Your task to perform on an android device: find photos in the google photos app Image 0: 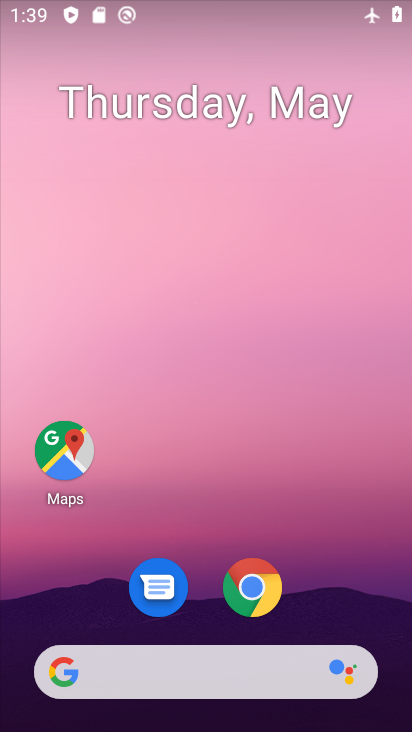
Step 0: drag from (309, 519) to (213, 64)
Your task to perform on an android device: find photos in the google photos app Image 1: 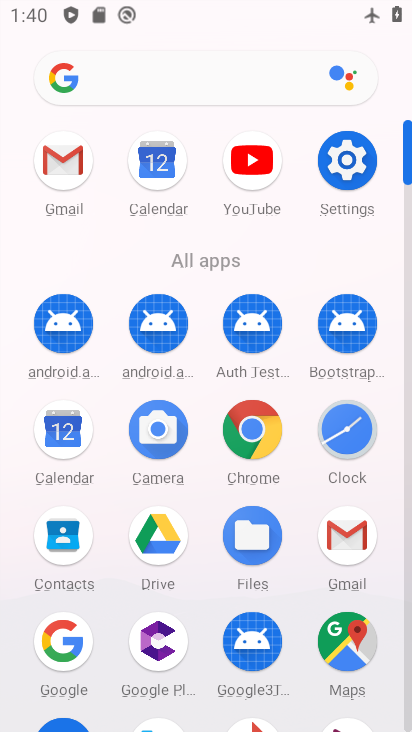
Step 1: click (259, 308)
Your task to perform on an android device: find photos in the google photos app Image 2: 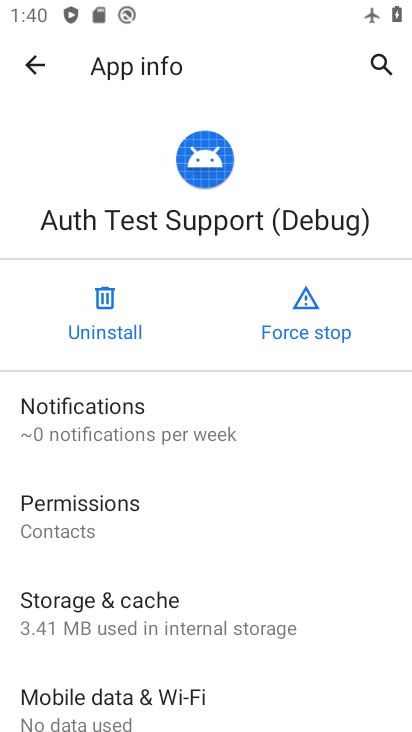
Step 2: click (193, 346)
Your task to perform on an android device: find photos in the google photos app Image 3: 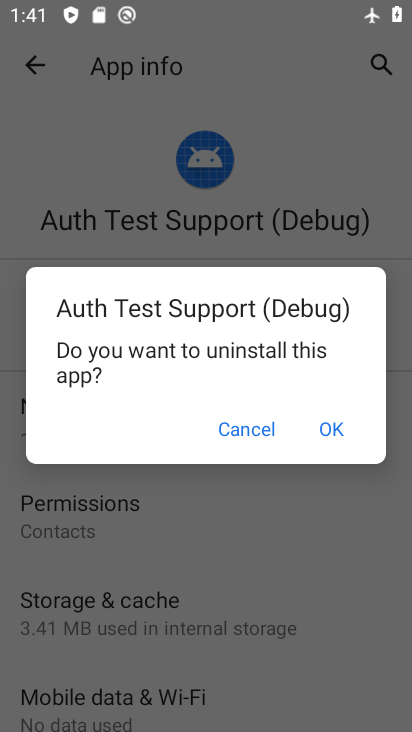
Step 3: click (28, 57)
Your task to perform on an android device: find photos in the google photos app Image 4: 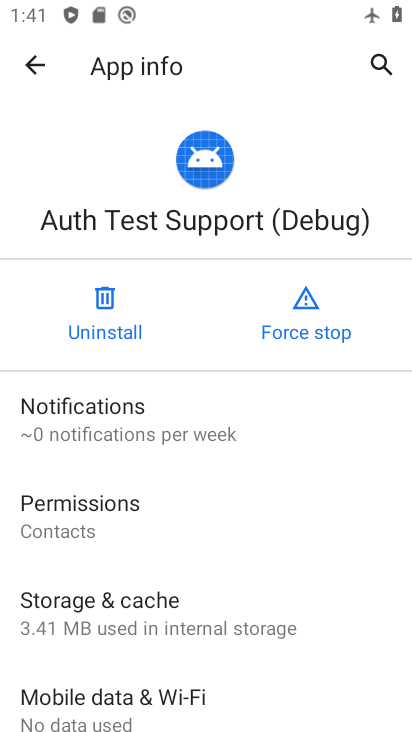
Step 4: press home button
Your task to perform on an android device: find photos in the google photos app Image 5: 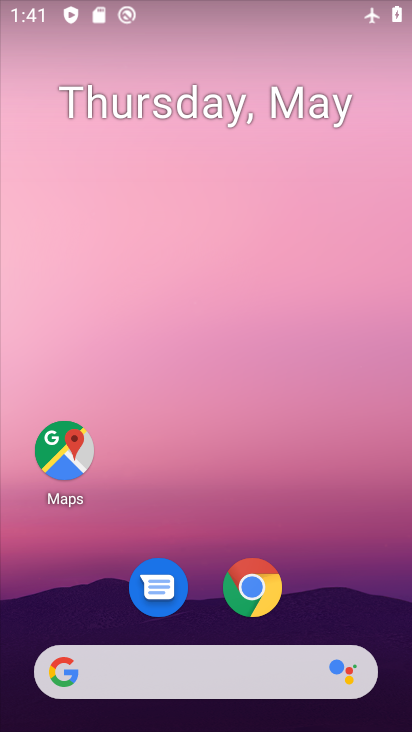
Step 5: drag from (302, 532) to (259, 102)
Your task to perform on an android device: find photos in the google photos app Image 6: 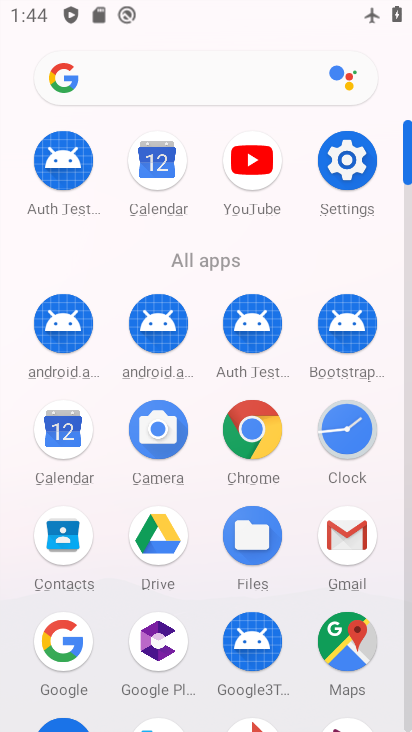
Step 6: drag from (208, 594) to (189, 336)
Your task to perform on an android device: find photos in the google photos app Image 7: 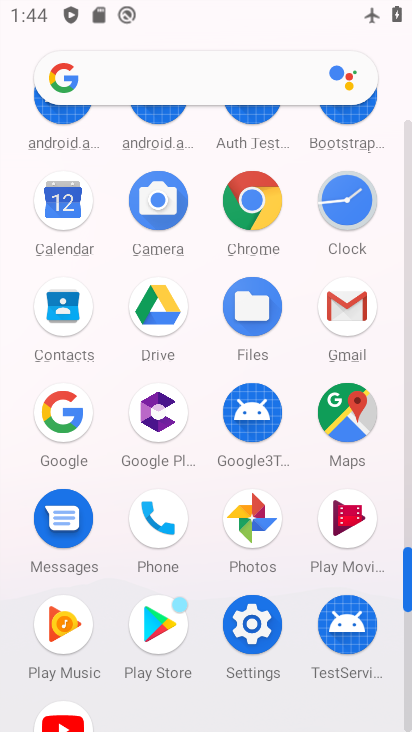
Step 7: click (250, 512)
Your task to perform on an android device: find photos in the google photos app Image 8: 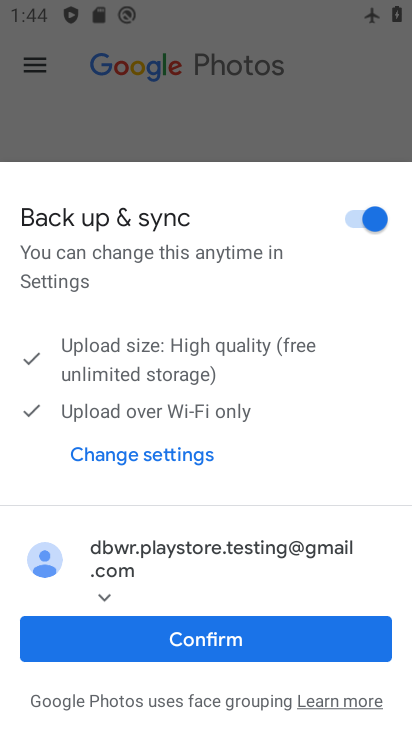
Step 8: click (211, 624)
Your task to perform on an android device: find photos in the google photos app Image 9: 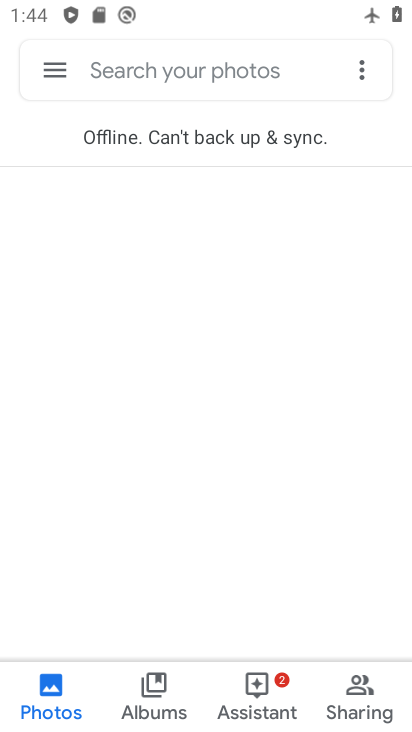
Step 9: click (104, 70)
Your task to perform on an android device: find photos in the google photos app Image 10: 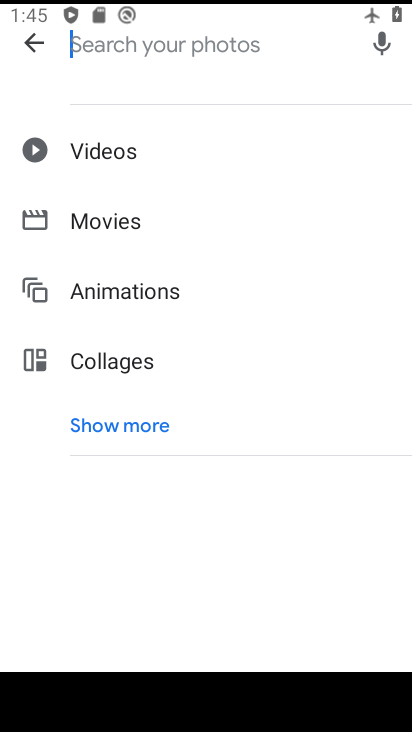
Step 10: click (112, 420)
Your task to perform on an android device: find photos in the google photos app Image 11: 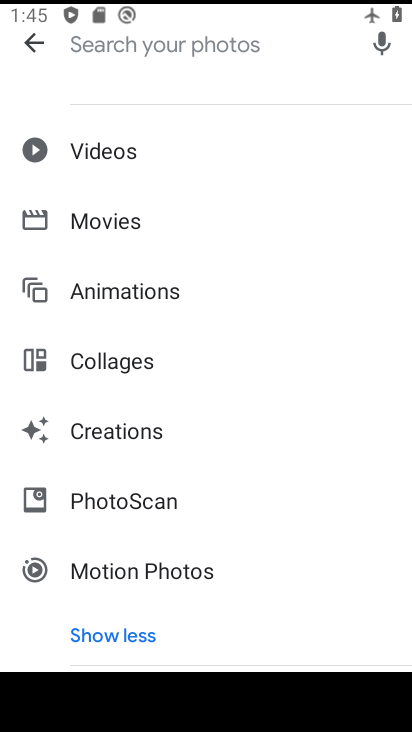
Step 11: drag from (155, 326) to (144, 271)
Your task to perform on an android device: find photos in the google photos app Image 12: 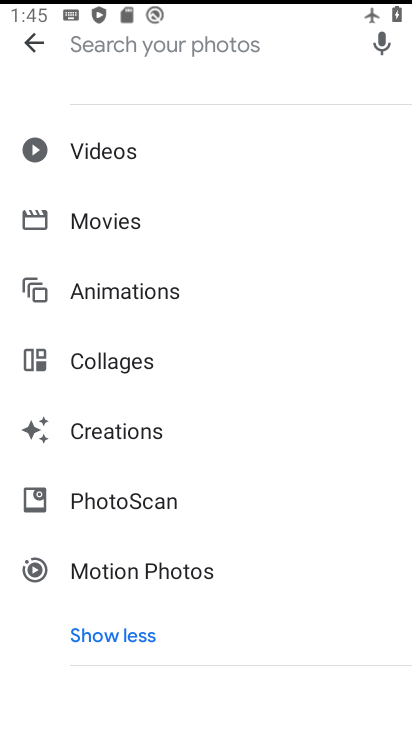
Step 12: click (132, 45)
Your task to perform on an android device: find photos in the google photos app Image 13: 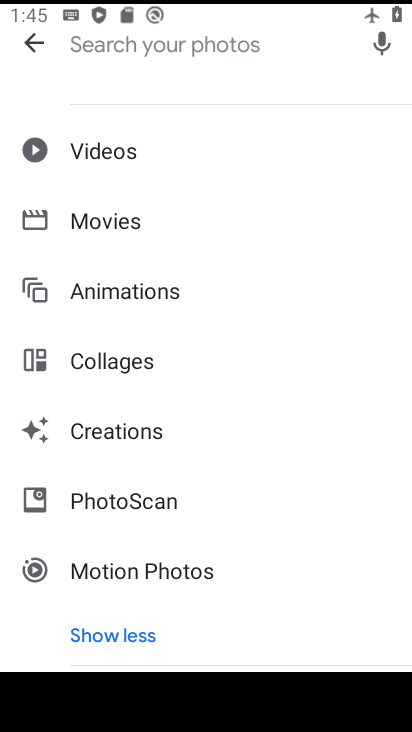
Step 13: task complete